Your task to perform on an android device: Open calendar and show me the second week of next month Image 0: 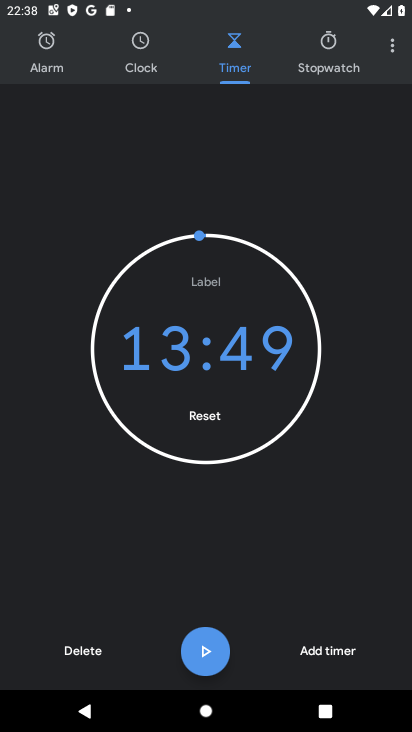
Step 0: press home button
Your task to perform on an android device: Open calendar and show me the second week of next month Image 1: 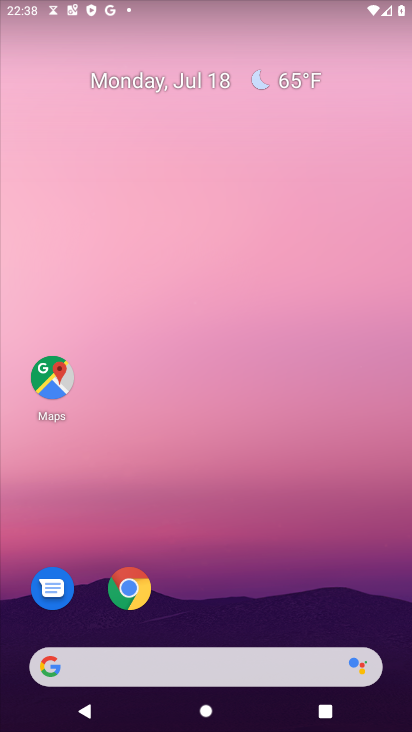
Step 1: drag from (186, 666) to (239, 114)
Your task to perform on an android device: Open calendar and show me the second week of next month Image 2: 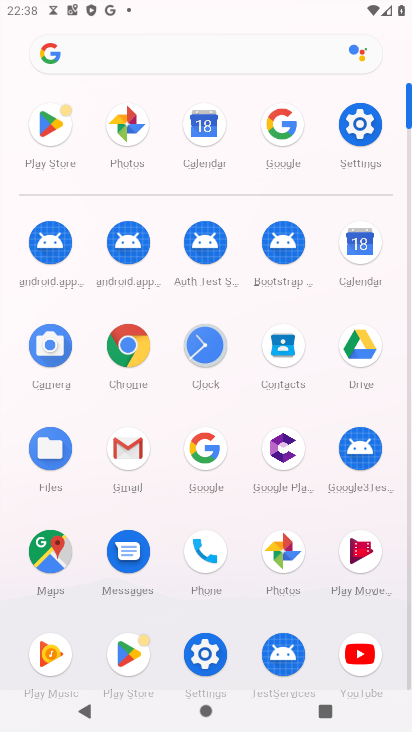
Step 2: click (357, 244)
Your task to perform on an android device: Open calendar and show me the second week of next month Image 3: 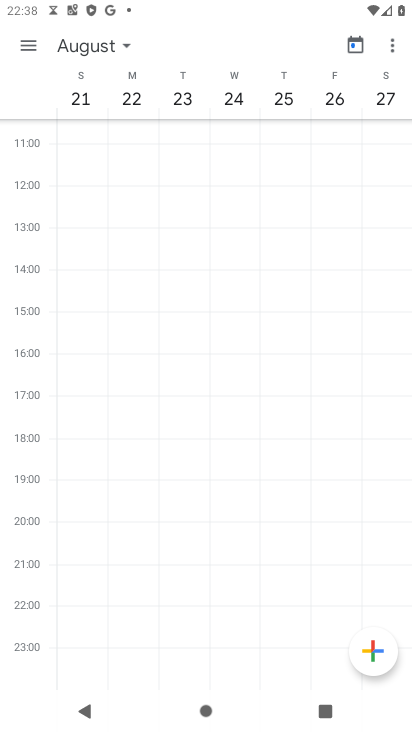
Step 3: click (355, 43)
Your task to perform on an android device: Open calendar and show me the second week of next month Image 4: 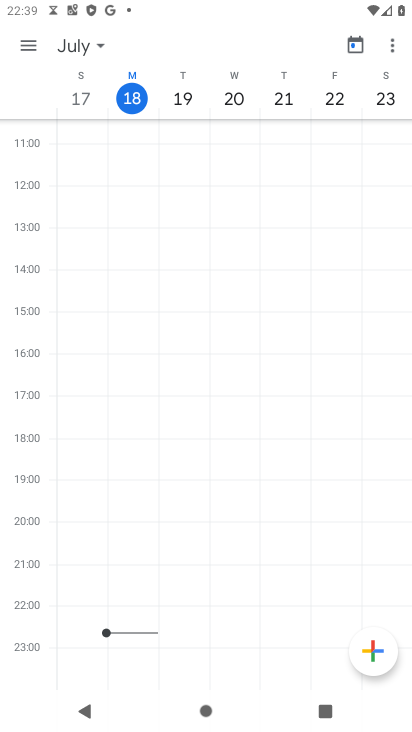
Step 4: click (358, 44)
Your task to perform on an android device: Open calendar and show me the second week of next month Image 5: 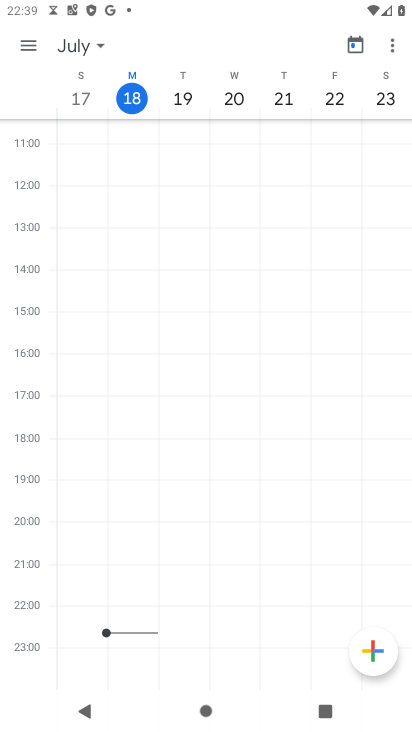
Step 5: click (104, 47)
Your task to perform on an android device: Open calendar and show me the second week of next month Image 6: 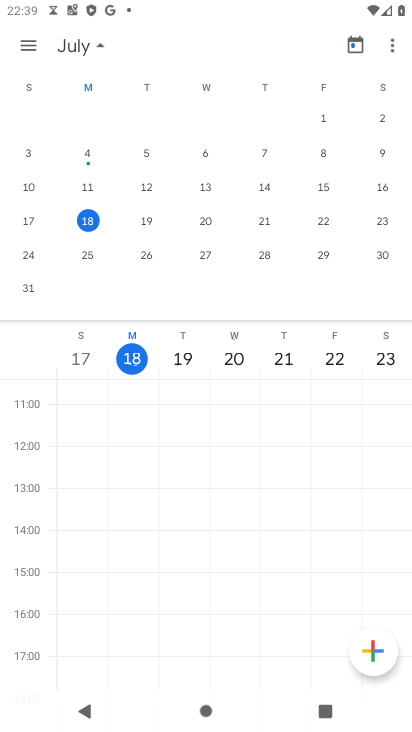
Step 6: drag from (362, 231) to (2, 204)
Your task to perform on an android device: Open calendar and show me the second week of next month Image 7: 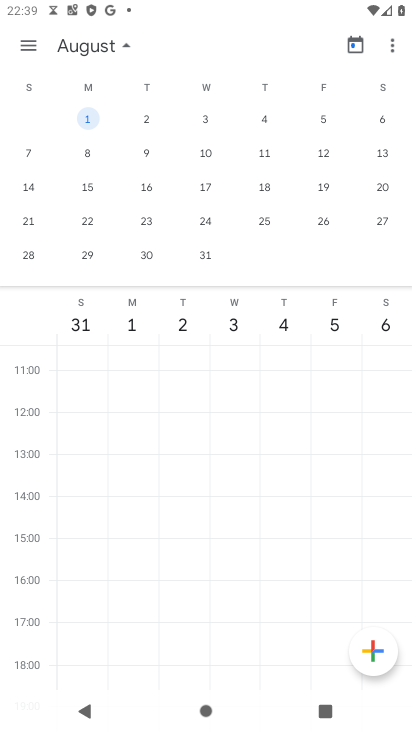
Step 7: click (90, 154)
Your task to perform on an android device: Open calendar and show me the second week of next month Image 8: 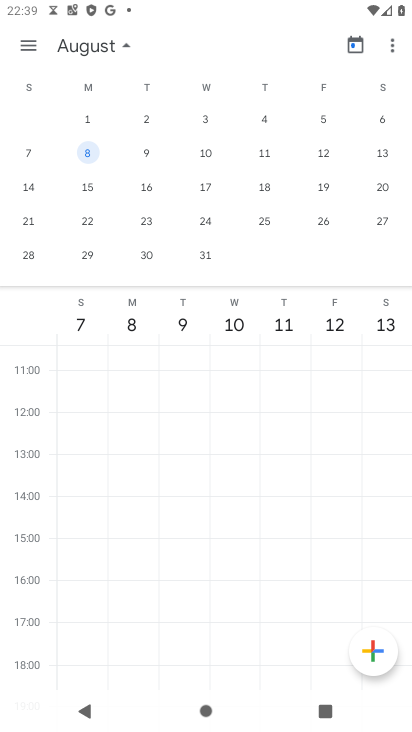
Step 8: click (25, 41)
Your task to perform on an android device: Open calendar and show me the second week of next month Image 9: 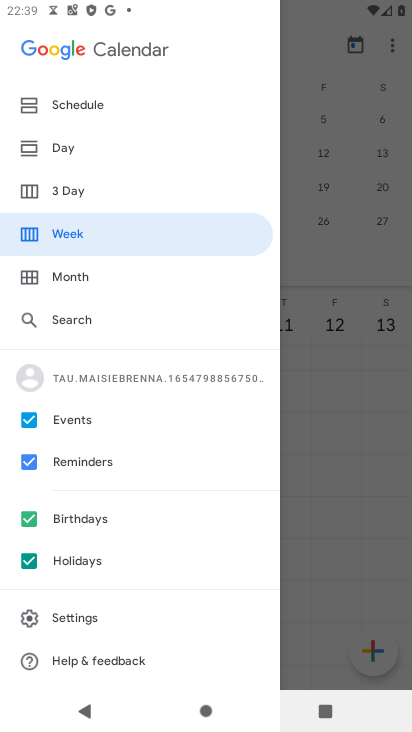
Step 9: click (95, 237)
Your task to perform on an android device: Open calendar and show me the second week of next month Image 10: 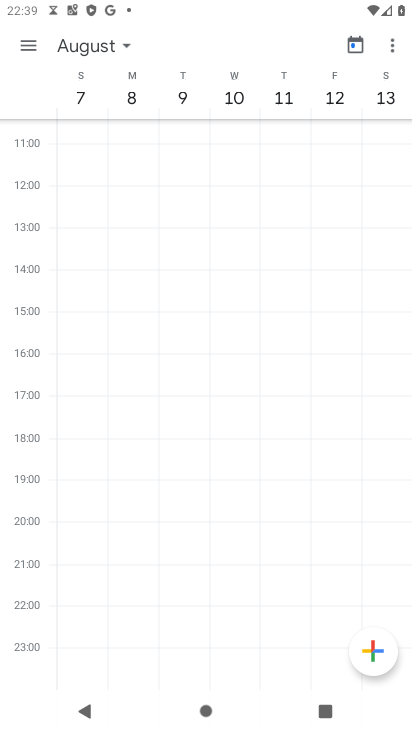
Step 10: task complete